Your task to perform on an android device: change text size in settings app Image 0: 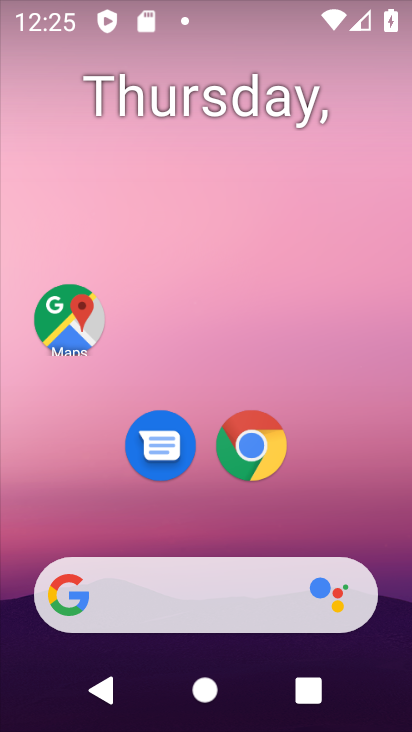
Step 0: drag from (356, 524) to (359, 153)
Your task to perform on an android device: change text size in settings app Image 1: 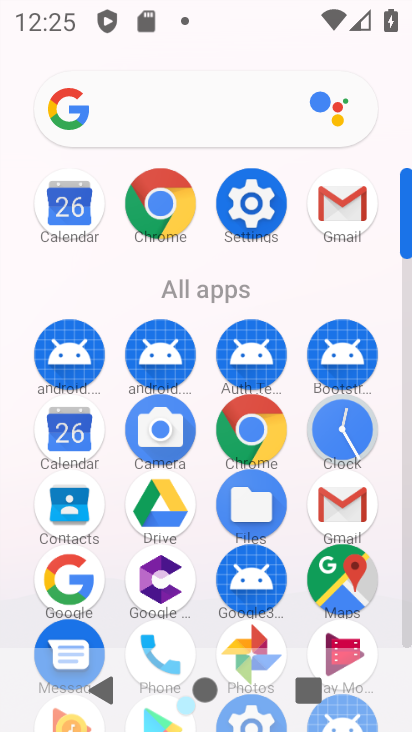
Step 1: click (243, 228)
Your task to perform on an android device: change text size in settings app Image 2: 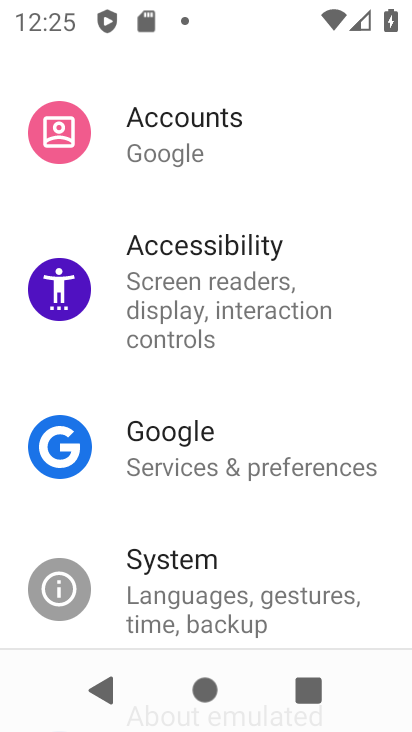
Step 2: drag from (289, 588) to (307, 294)
Your task to perform on an android device: change text size in settings app Image 3: 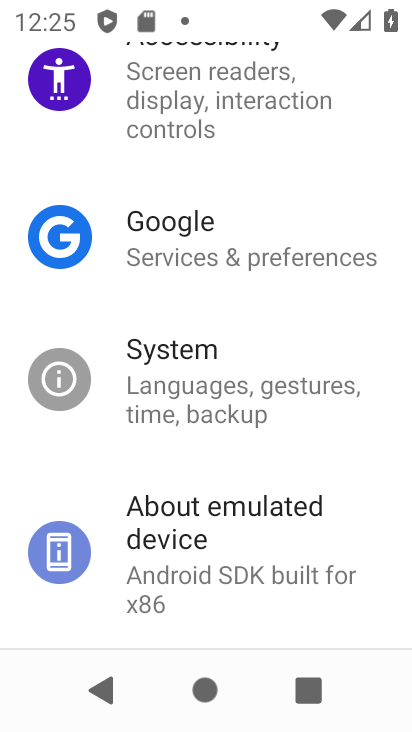
Step 3: drag from (250, 173) to (225, 597)
Your task to perform on an android device: change text size in settings app Image 4: 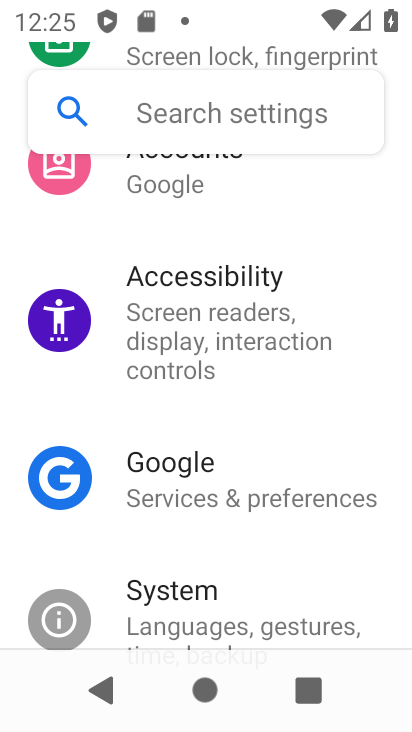
Step 4: drag from (289, 206) to (261, 630)
Your task to perform on an android device: change text size in settings app Image 5: 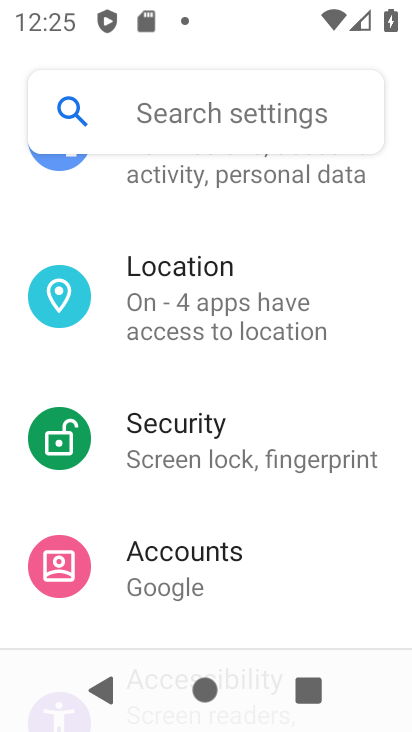
Step 5: drag from (230, 202) to (263, 637)
Your task to perform on an android device: change text size in settings app Image 6: 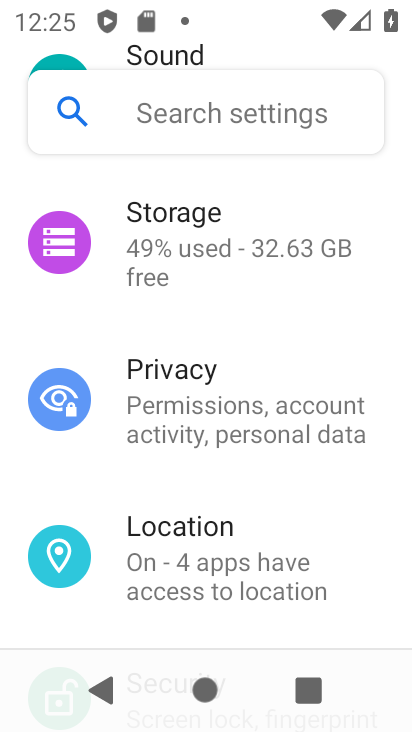
Step 6: drag from (265, 179) to (276, 563)
Your task to perform on an android device: change text size in settings app Image 7: 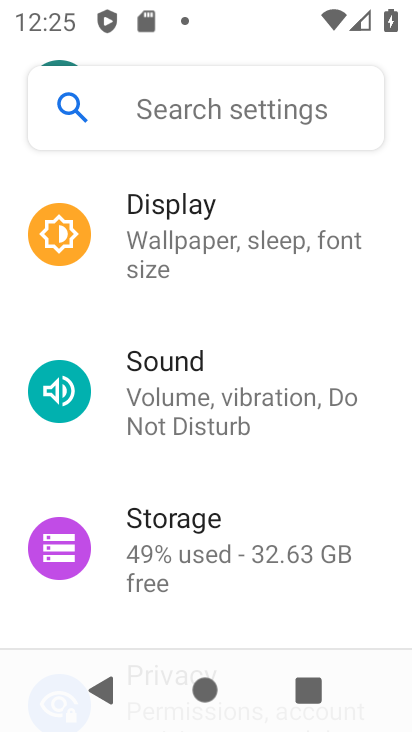
Step 7: click (222, 244)
Your task to perform on an android device: change text size in settings app Image 8: 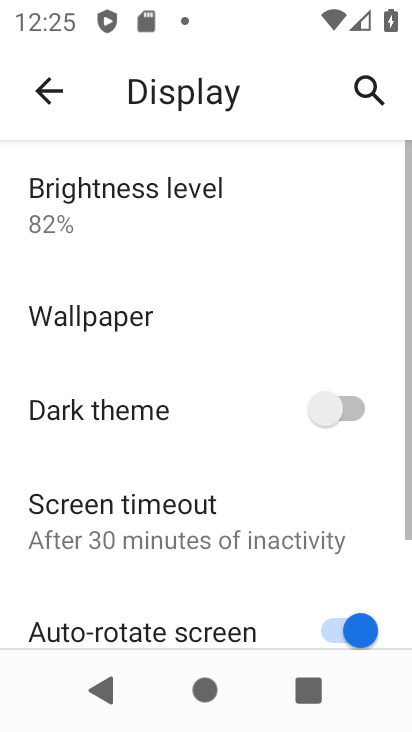
Step 8: drag from (199, 613) to (253, 268)
Your task to perform on an android device: change text size in settings app Image 9: 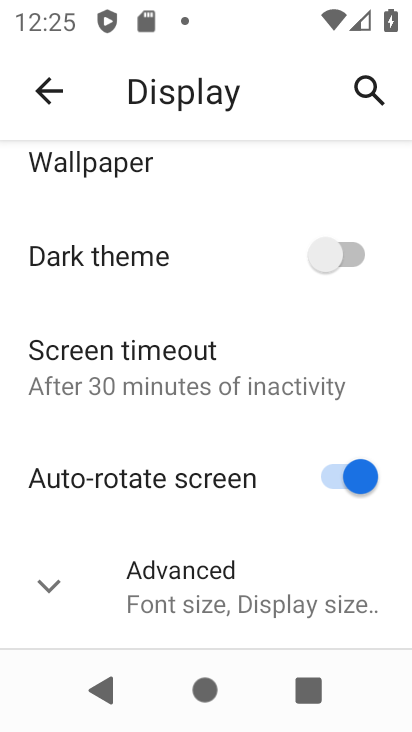
Step 9: click (183, 587)
Your task to perform on an android device: change text size in settings app Image 10: 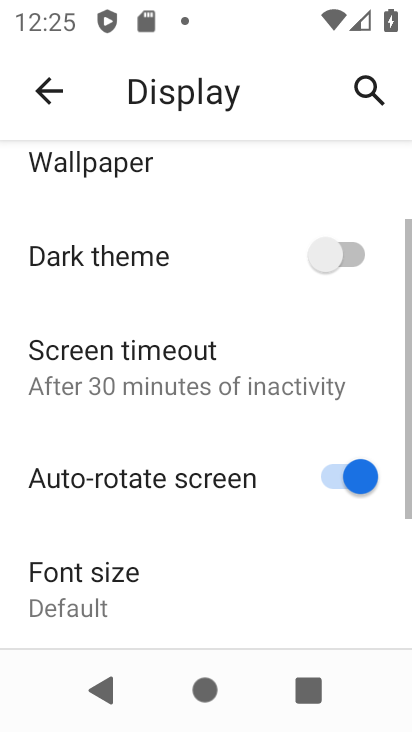
Step 10: click (176, 589)
Your task to perform on an android device: change text size in settings app Image 11: 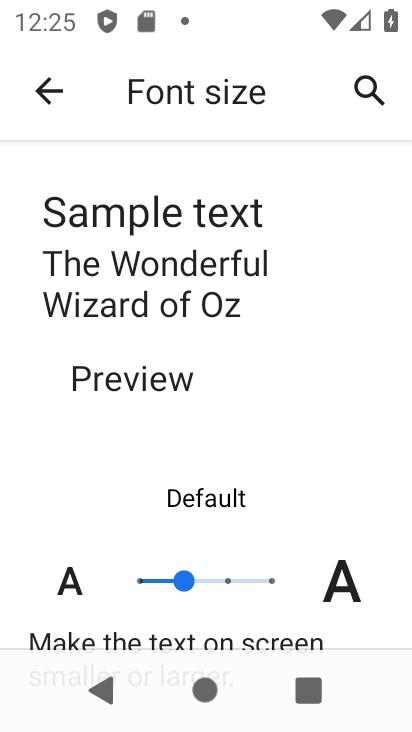
Step 11: click (132, 570)
Your task to perform on an android device: change text size in settings app Image 12: 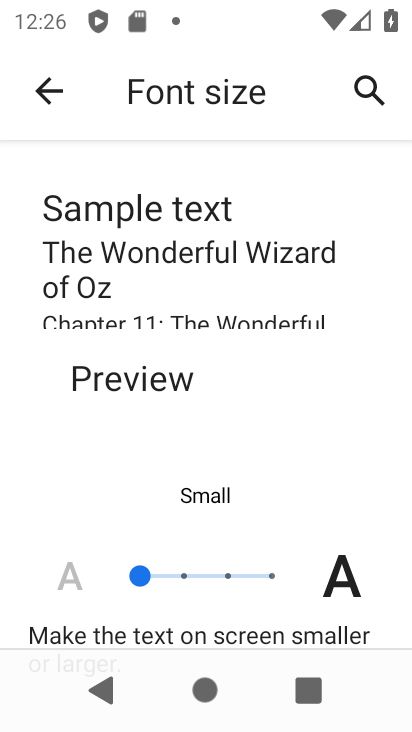
Step 12: task complete